Your task to perform on an android device: Open network settings Image 0: 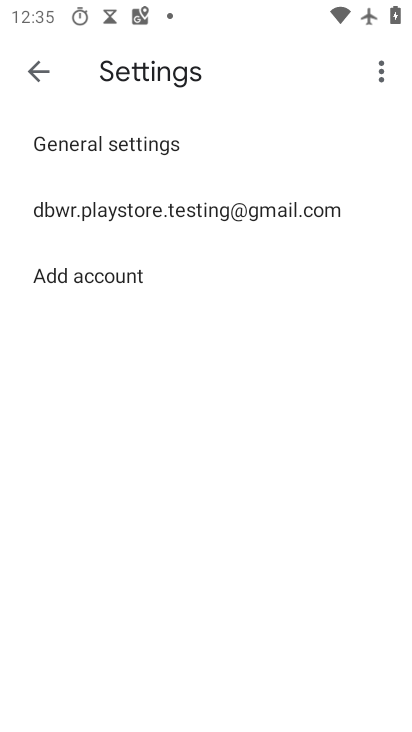
Step 0: press home button
Your task to perform on an android device: Open network settings Image 1: 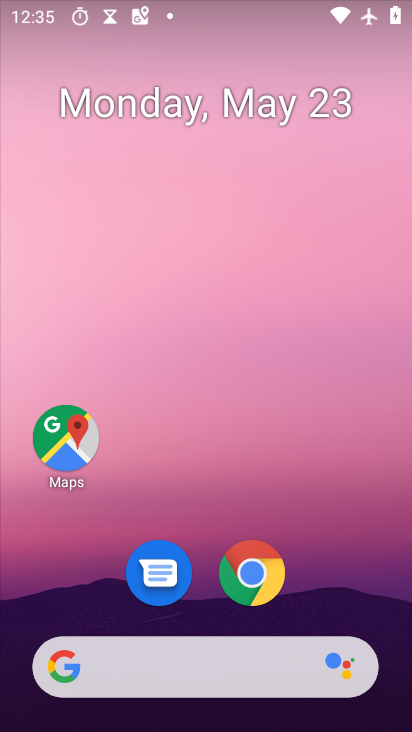
Step 1: drag from (199, 669) to (332, 123)
Your task to perform on an android device: Open network settings Image 2: 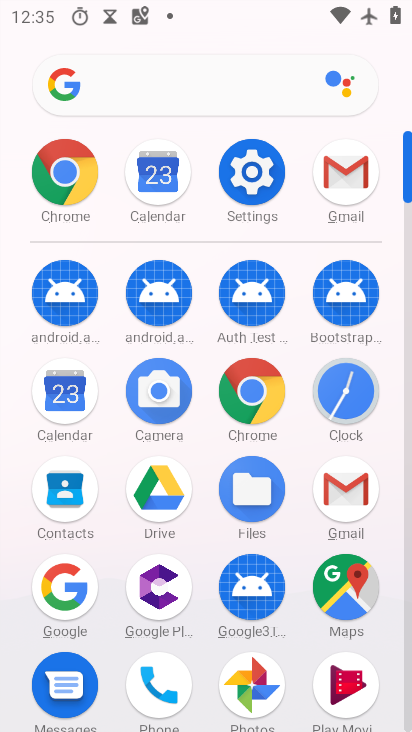
Step 2: click (268, 182)
Your task to perform on an android device: Open network settings Image 3: 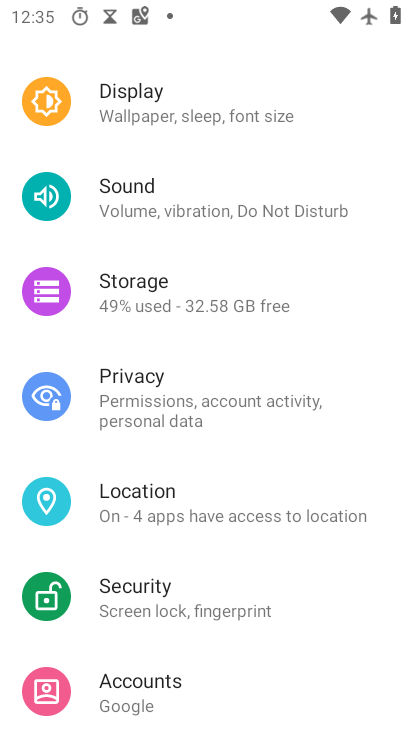
Step 3: drag from (346, 123) to (294, 478)
Your task to perform on an android device: Open network settings Image 4: 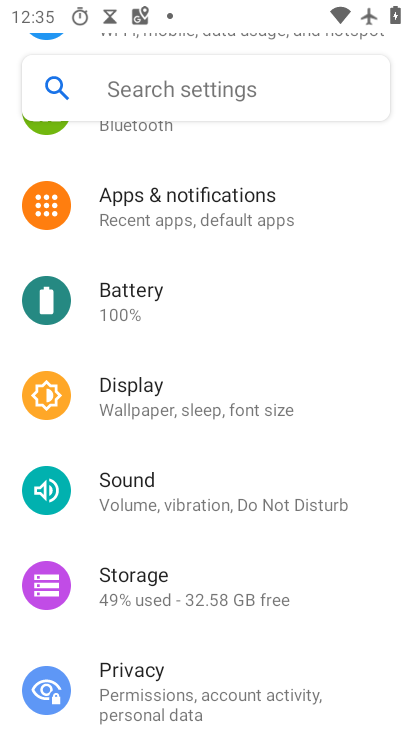
Step 4: drag from (312, 166) to (273, 576)
Your task to perform on an android device: Open network settings Image 5: 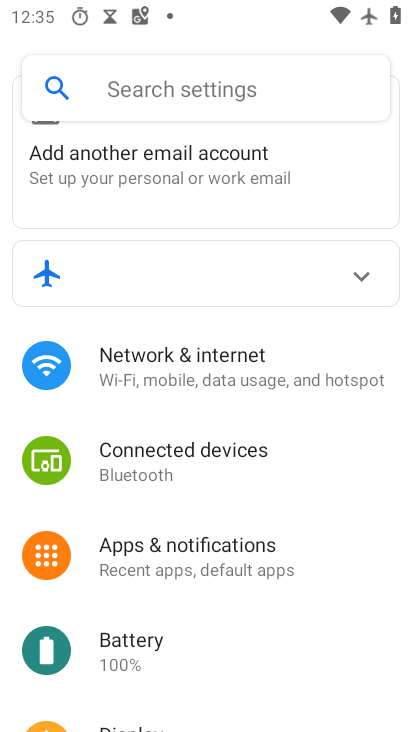
Step 5: click (212, 353)
Your task to perform on an android device: Open network settings Image 6: 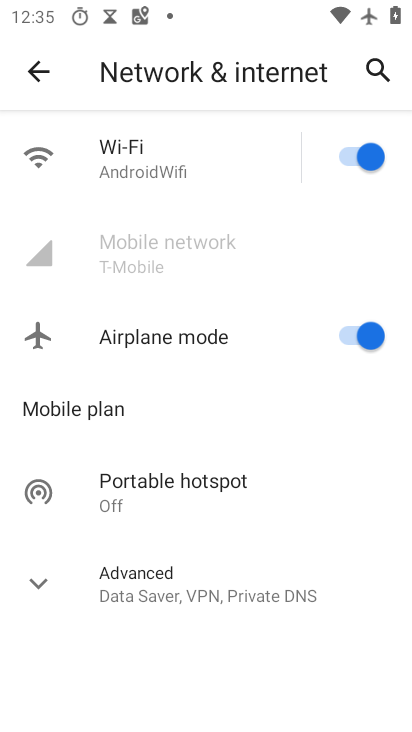
Step 6: task complete